Your task to perform on an android device: turn off javascript in the chrome app Image 0: 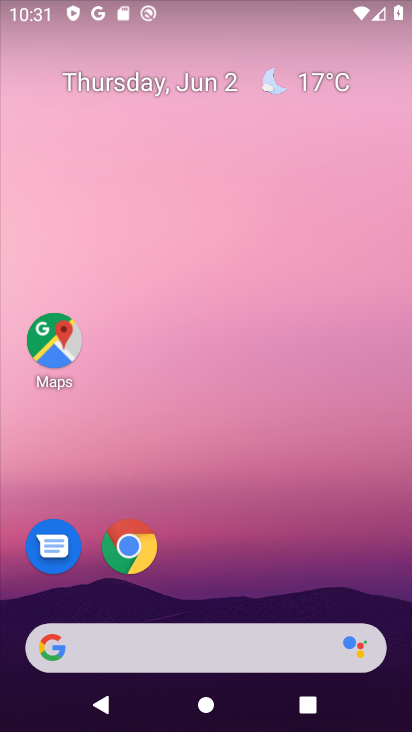
Step 0: drag from (257, 413) to (187, 20)
Your task to perform on an android device: turn off javascript in the chrome app Image 1: 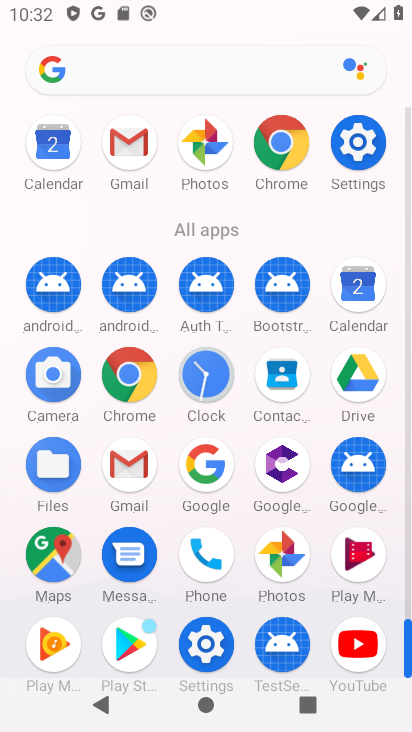
Step 1: click (125, 368)
Your task to perform on an android device: turn off javascript in the chrome app Image 2: 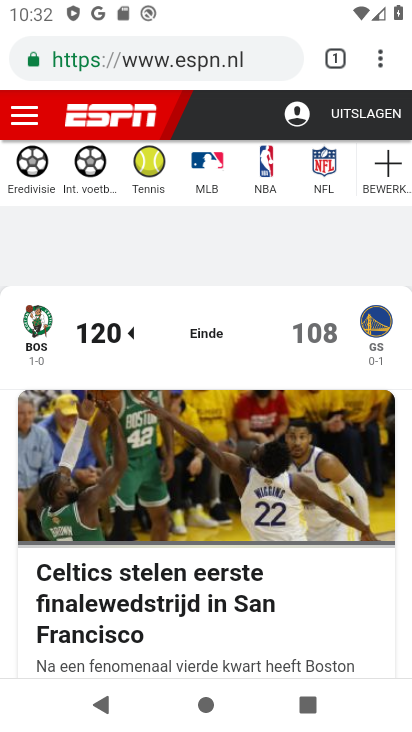
Step 2: drag from (380, 59) to (247, 564)
Your task to perform on an android device: turn off javascript in the chrome app Image 3: 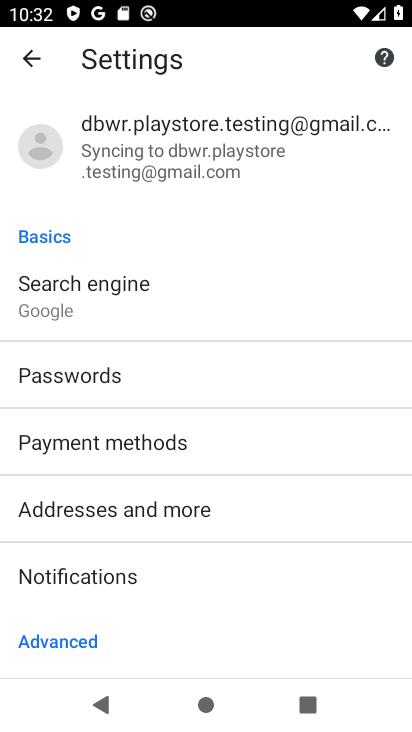
Step 3: drag from (233, 567) to (257, 152)
Your task to perform on an android device: turn off javascript in the chrome app Image 4: 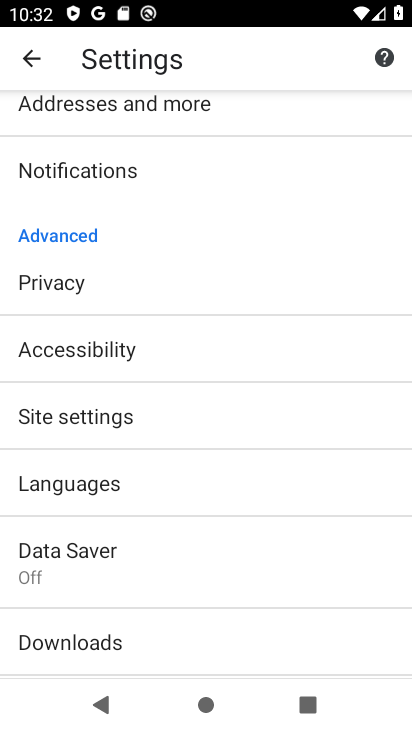
Step 4: click (137, 412)
Your task to perform on an android device: turn off javascript in the chrome app Image 5: 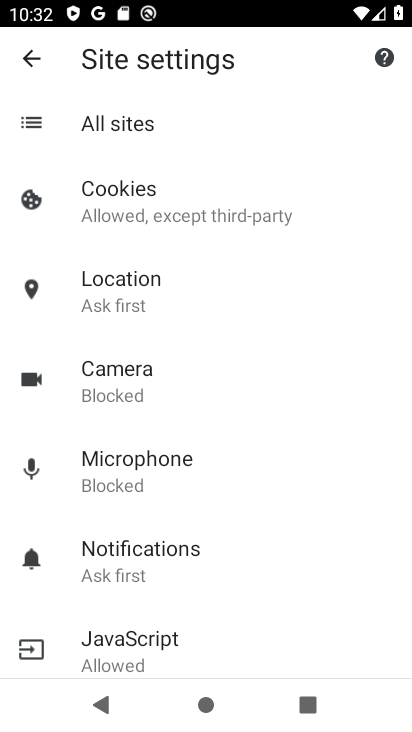
Step 5: drag from (223, 597) to (237, 243)
Your task to perform on an android device: turn off javascript in the chrome app Image 6: 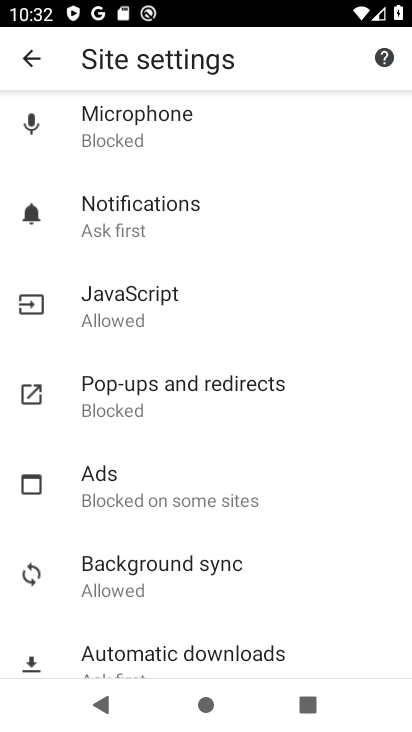
Step 6: click (171, 318)
Your task to perform on an android device: turn off javascript in the chrome app Image 7: 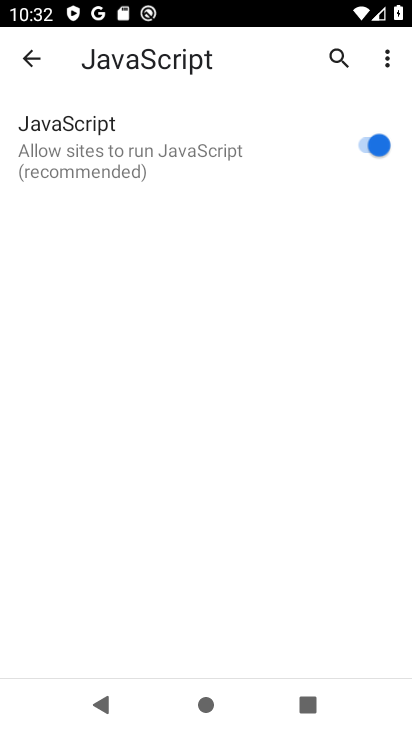
Step 7: click (367, 141)
Your task to perform on an android device: turn off javascript in the chrome app Image 8: 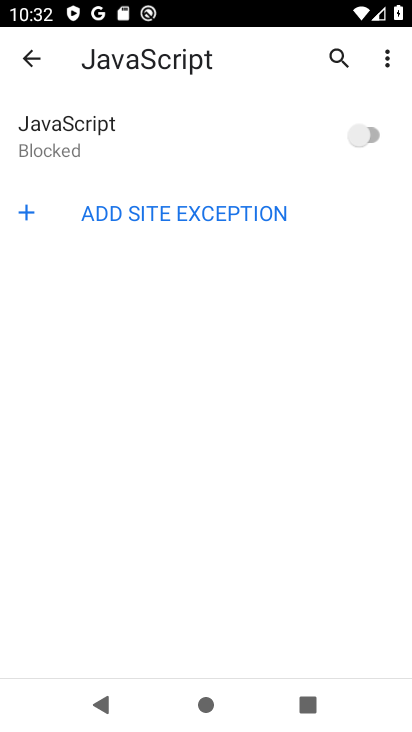
Step 8: task complete